Your task to perform on an android device: set an alarm Image 0: 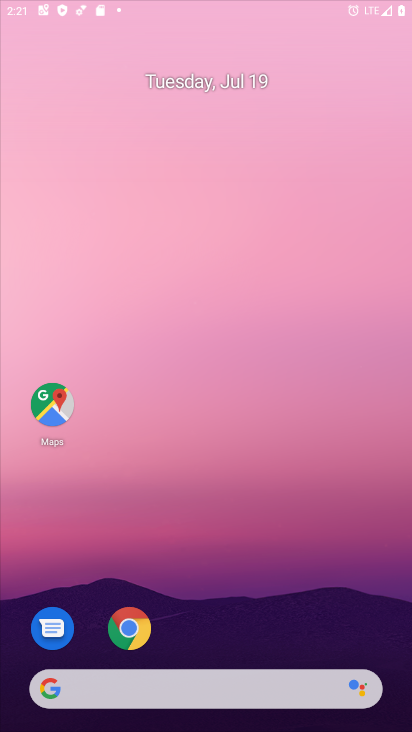
Step 0: press home button
Your task to perform on an android device: set an alarm Image 1: 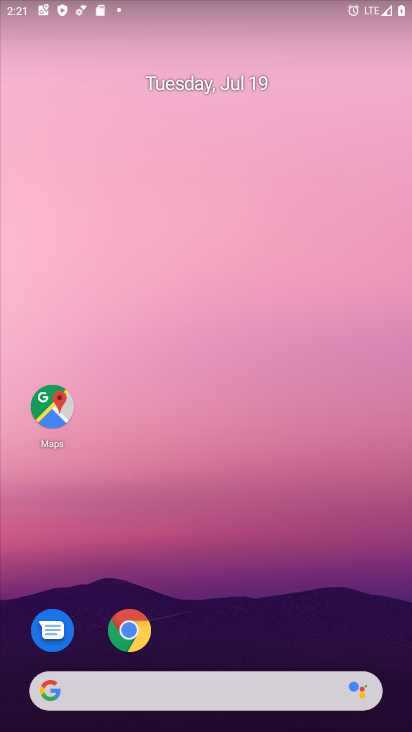
Step 1: drag from (201, 630) to (229, 151)
Your task to perform on an android device: set an alarm Image 2: 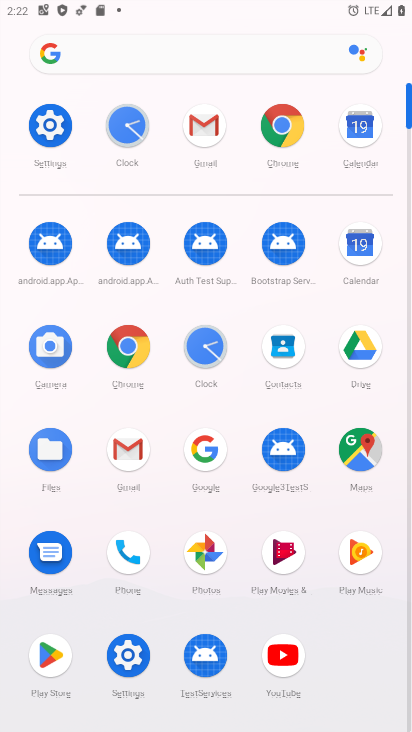
Step 2: click (127, 120)
Your task to perform on an android device: set an alarm Image 3: 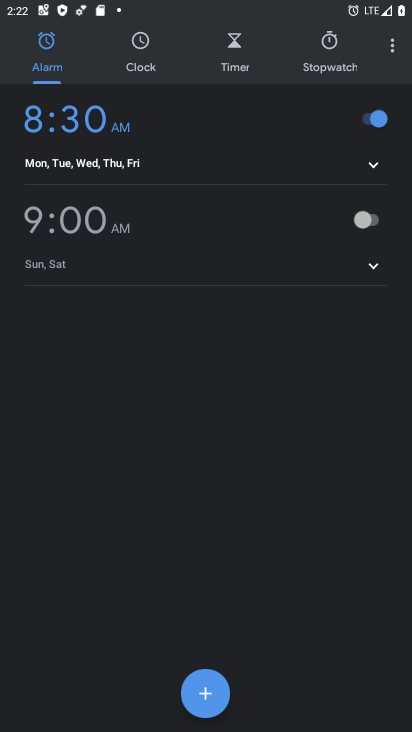
Step 3: click (371, 223)
Your task to perform on an android device: set an alarm Image 4: 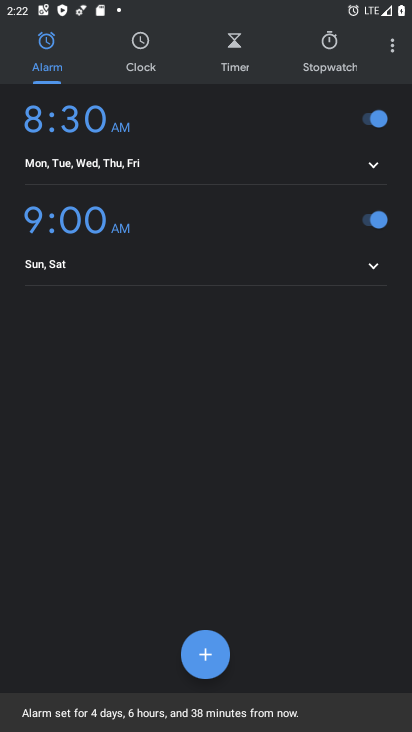
Step 4: task complete